Your task to perform on an android device: toggle priority inbox in the gmail app Image 0: 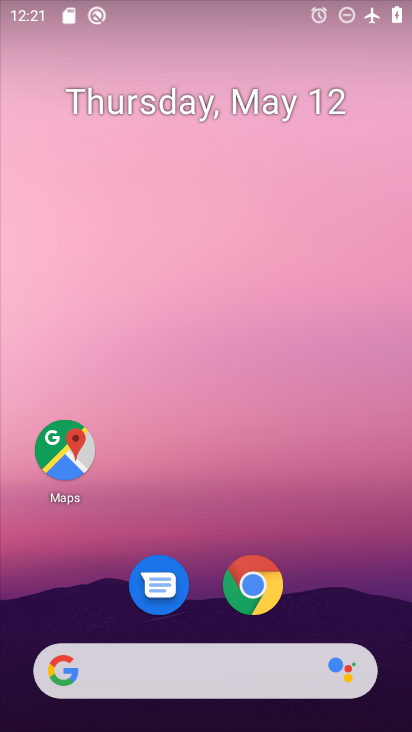
Step 0: drag from (208, 484) to (238, 33)
Your task to perform on an android device: toggle priority inbox in the gmail app Image 1: 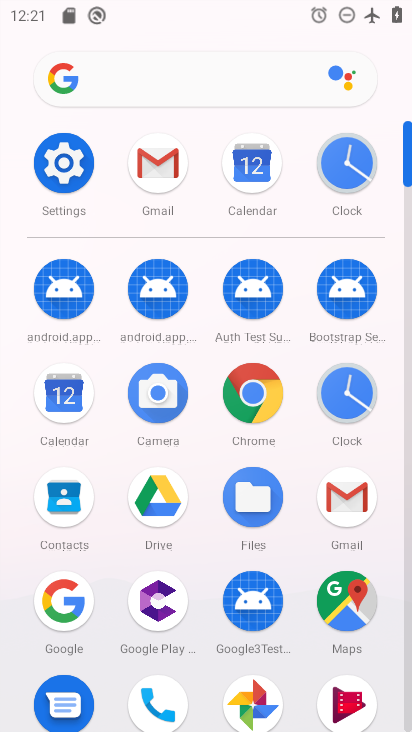
Step 1: click (161, 184)
Your task to perform on an android device: toggle priority inbox in the gmail app Image 2: 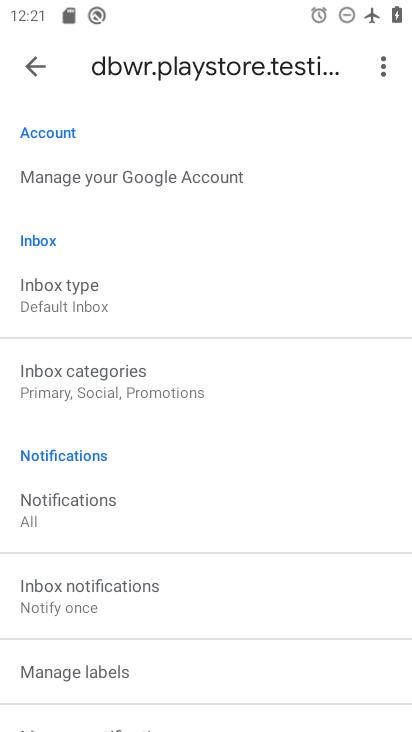
Step 2: click (81, 286)
Your task to perform on an android device: toggle priority inbox in the gmail app Image 3: 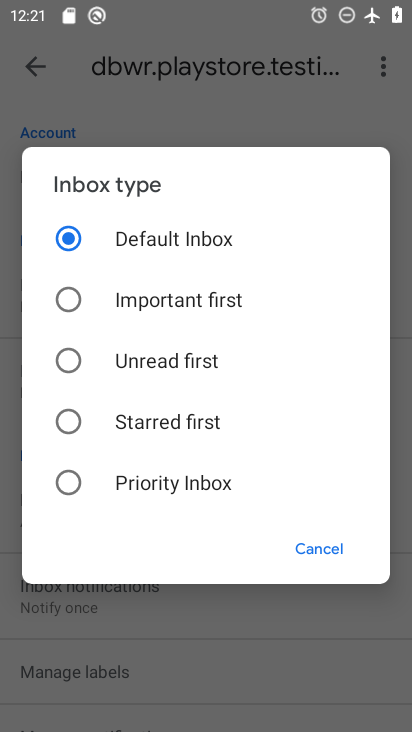
Step 3: click (66, 484)
Your task to perform on an android device: toggle priority inbox in the gmail app Image 4: 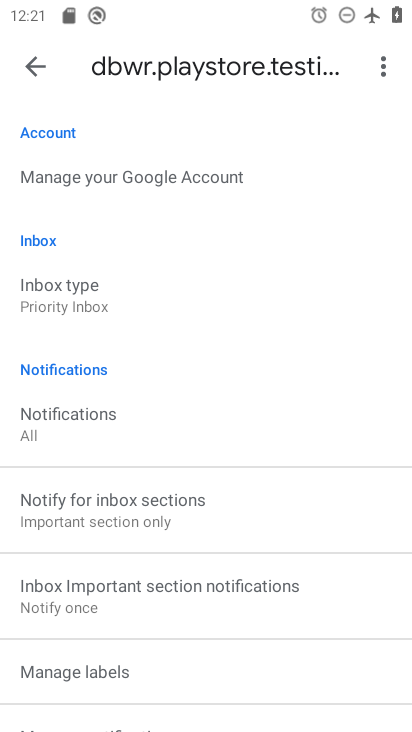
Step 4: task complete